Your task to perform on an android device: Open privacy settings Image 0: 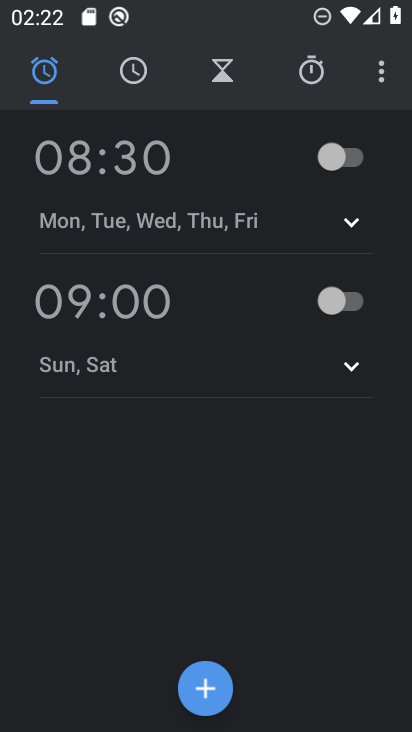
Step 0: press home button
Your task to perform on an android device: Open privacy settings Image 1: 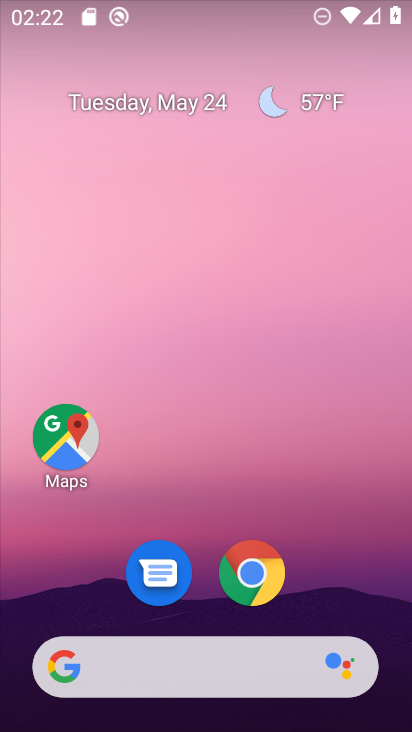
Step 1: drag from (366, 559) to (372, 207)
Your task to perform on an android device: Open privacy settings Image 2: 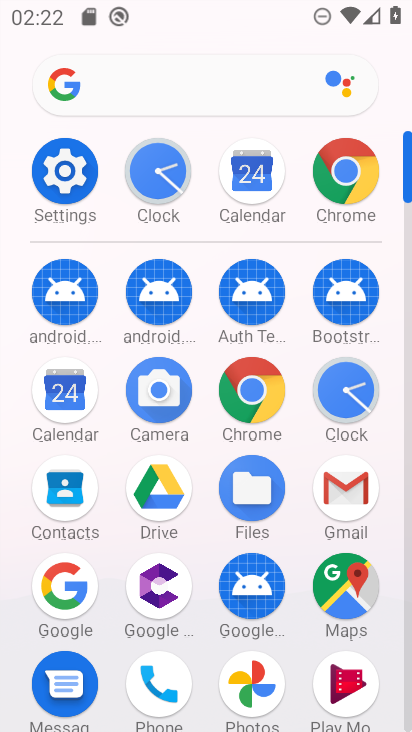
Step 2: click (85, 190)
Your task to perform on an android device: Open privacy settings Image 3: 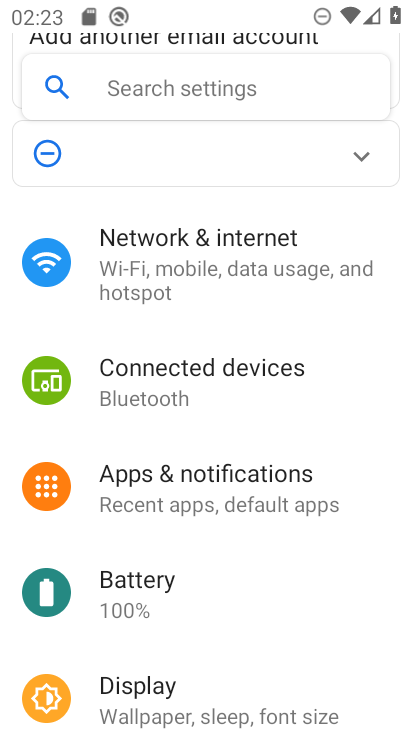
Step 3: drag from (282, 615) to (291, 332)
Your task to perform on an android device: Open privacy settings Image 4: 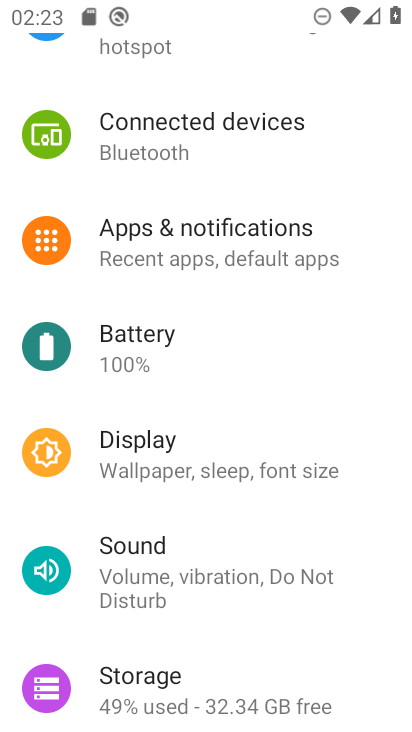
Step 4: drag from (274, 557) to (297, 332)
Your task to perform on an android device: Open privacy settings Image 5: 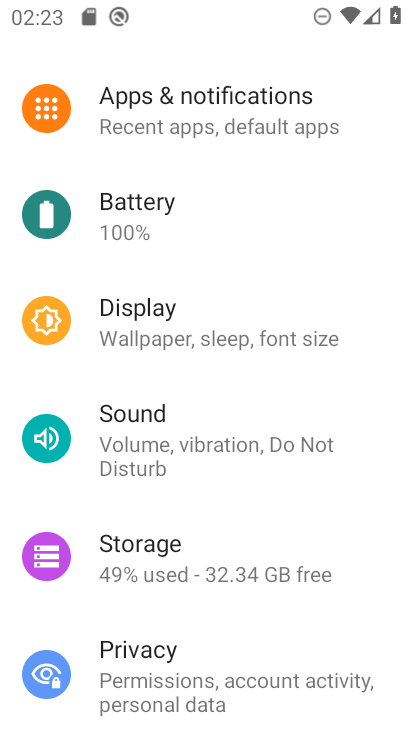
Step 5: click (200, 657)
Your task to perform on an android device: Open privacy settings Image 6: 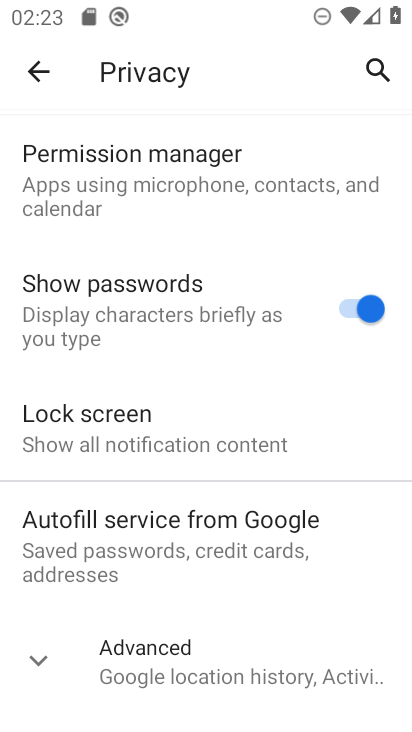
Step 6: task complete